Your task to perform on an android device: set the stopwatch Image 0: 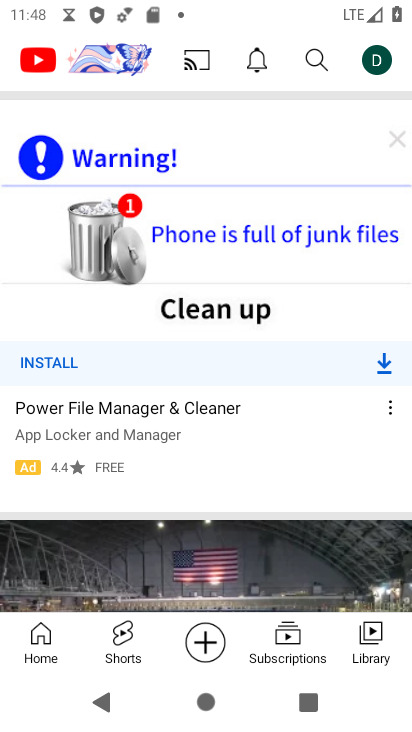
Step 0: press home button
Your task to perform on an android device: set the stopwatch Image 1: 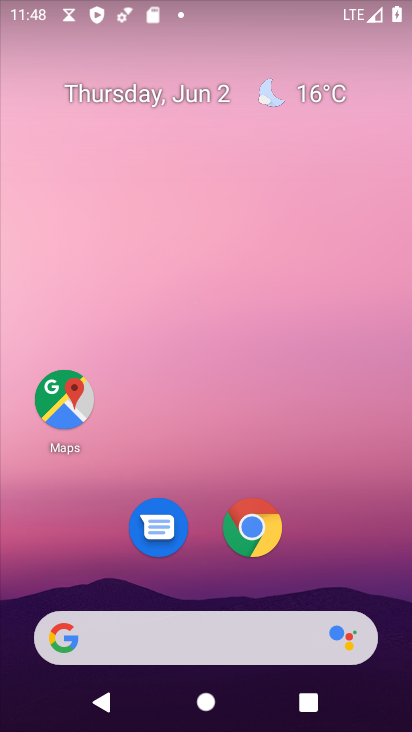
Step 1: drag from (187, 638) to (168, 326)
Your task to perform on an android device: set the stopwatch Image 2: 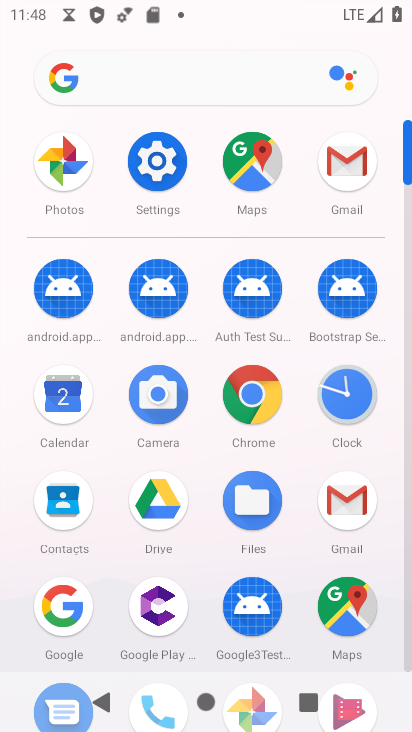
Step 2: click (355, 399)
Your task to perform on an android device: set the stopwatch Image 3: 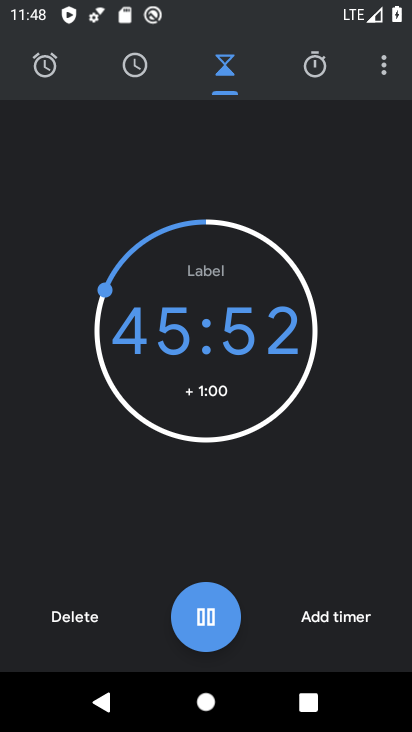
Step 3: click (298, 76)
Your task to perform on an android device: set the stopwatch Image 4: 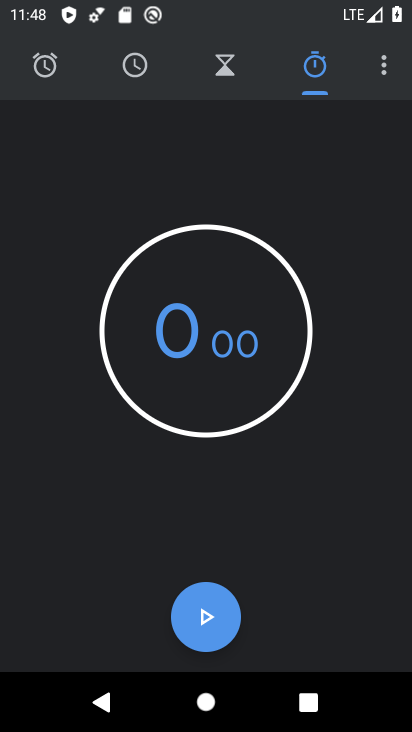
Step 4: click (215, 628)
Your task to perform on an android device: set the stopwatch Image 5: 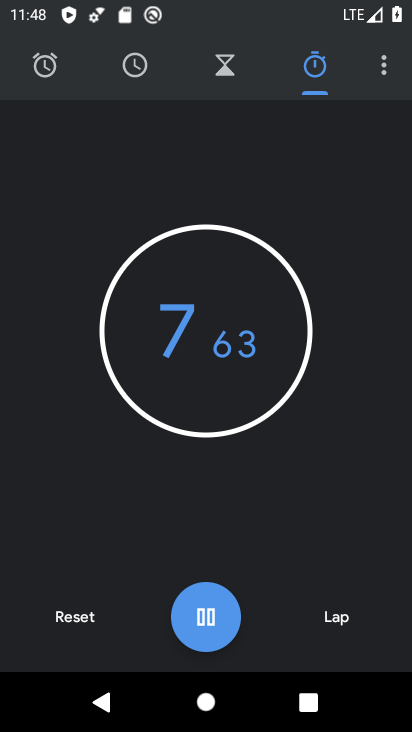
Step 5: task complete